Your task to perform on an android device: Open calendar and show me the first week of next month Image 0: 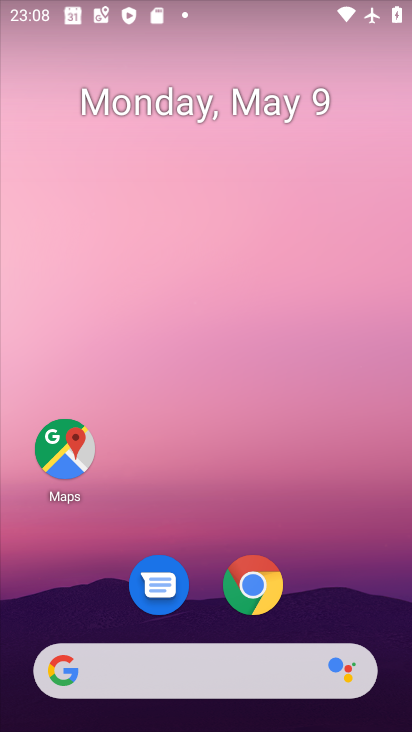
Step 0: drag from (311, 595) to (287, 36)
Your task to perform on an android device: Open calendar and show me the first week of next month Image 1: 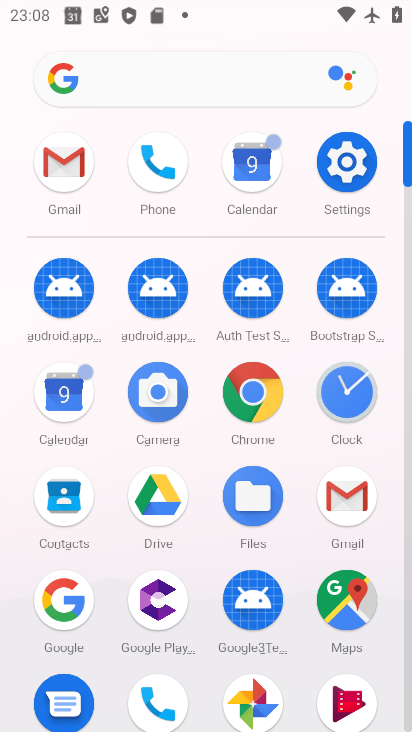
Step 1: click (251, 152)
Your task to perform on an android device: Open calendar and show me the first week of next month Image 2: 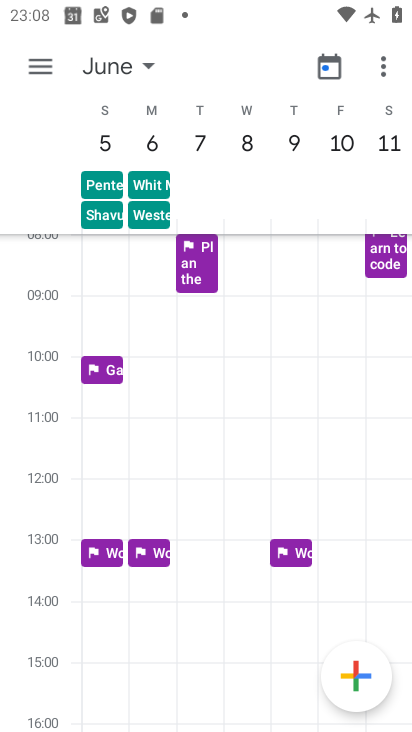
Step 2: task complete